Your task to perform on an android device: see creations saved in the google photos Image 0: 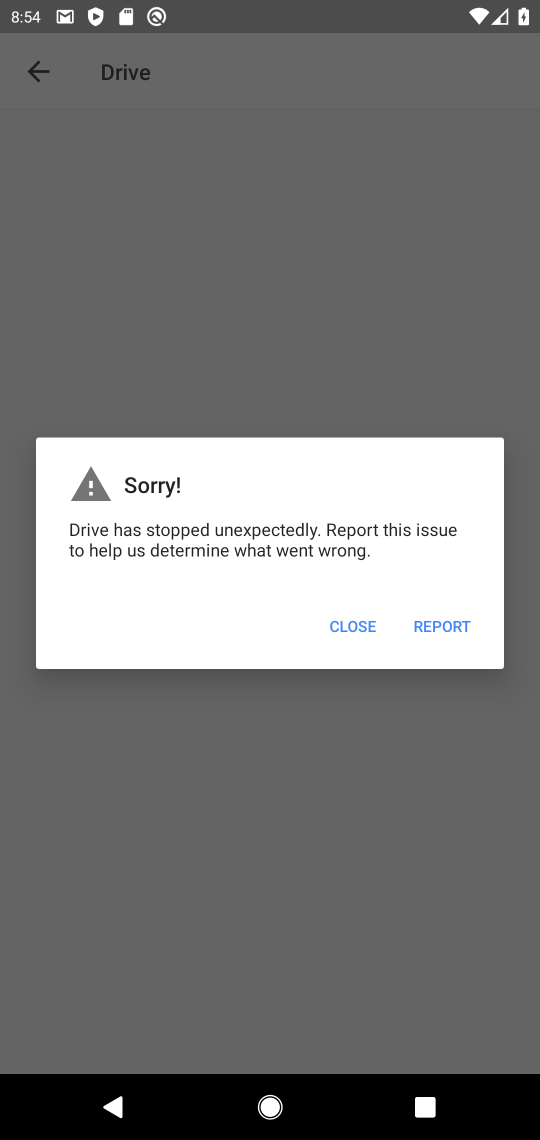
Step 0: press home button
Your task to perform on an android device: see creations saved in the google photos Image 1: 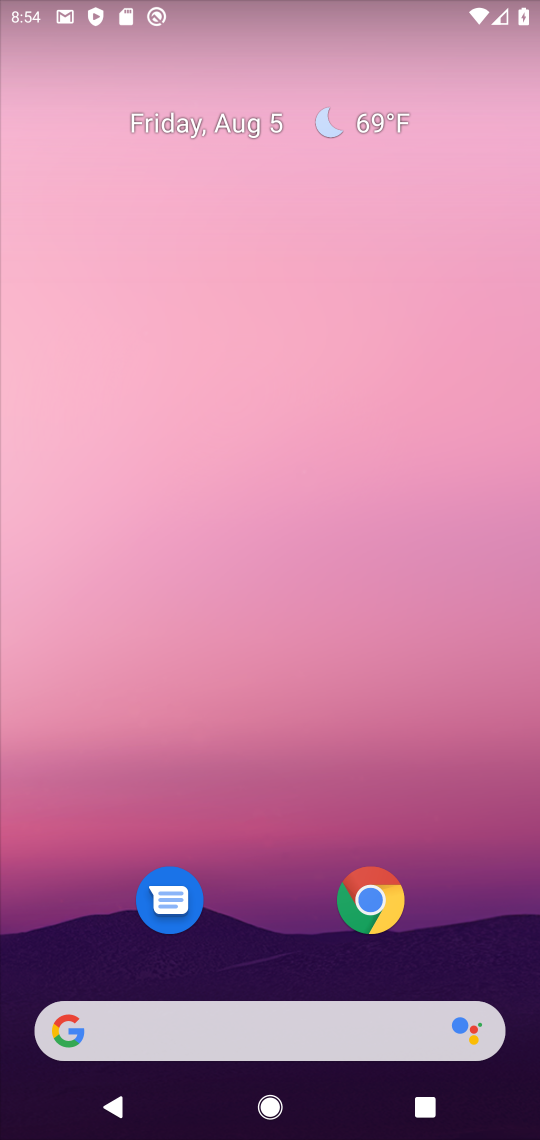
Step 1: drag from (249, 899) to (382, 266)
Your task to perform on an android device: see creations saved in the google photos Image 2: 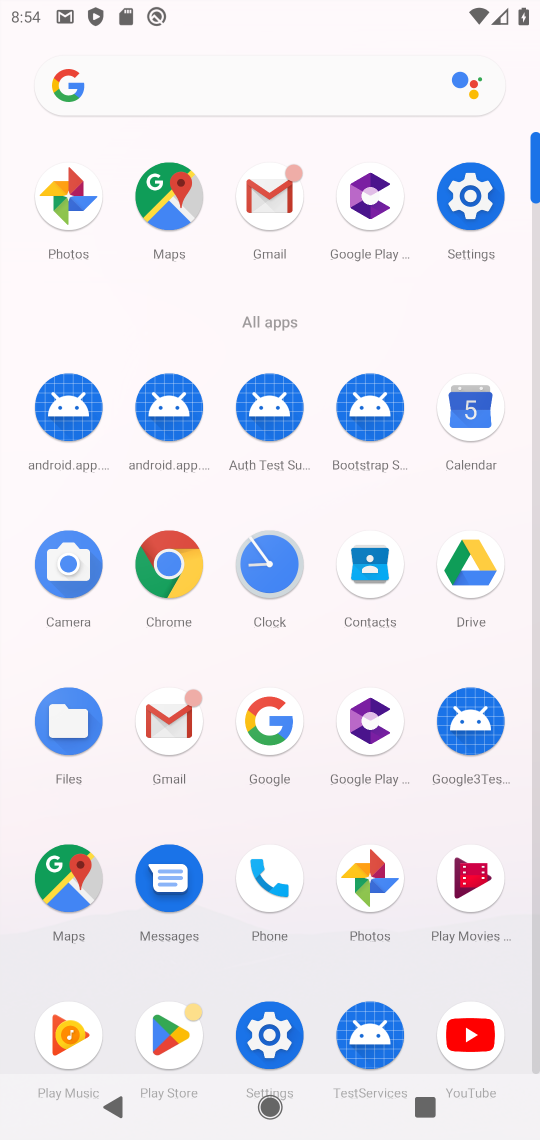
Step 2: click (379, 880)
Your task to perform on an android device: see creations saved in the google photos Image 3: 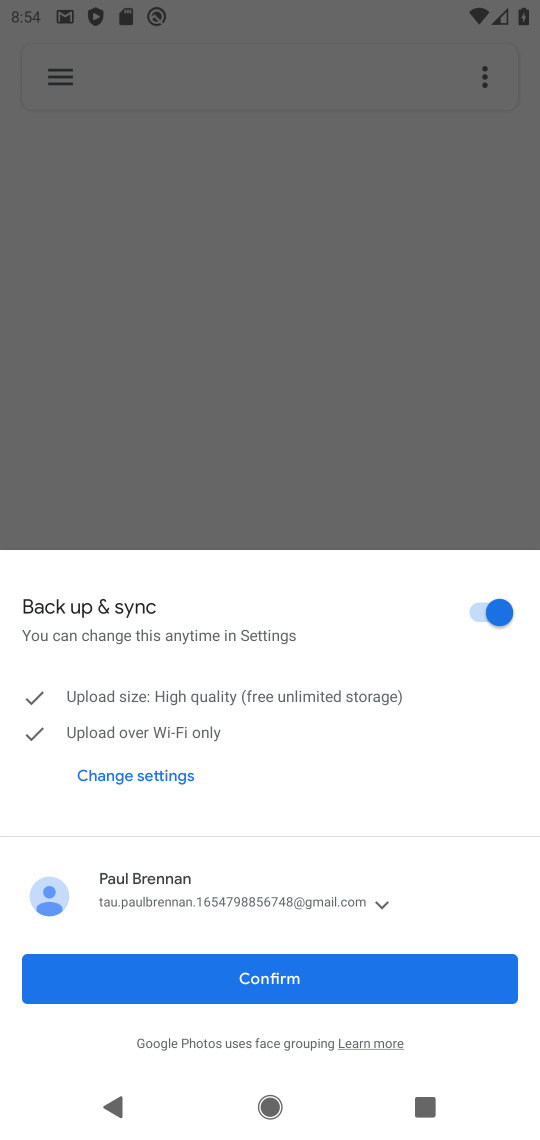
Step 3: click (286, 1024)
Your task to perform on an android device: see creations saved in the google photos Image 4: 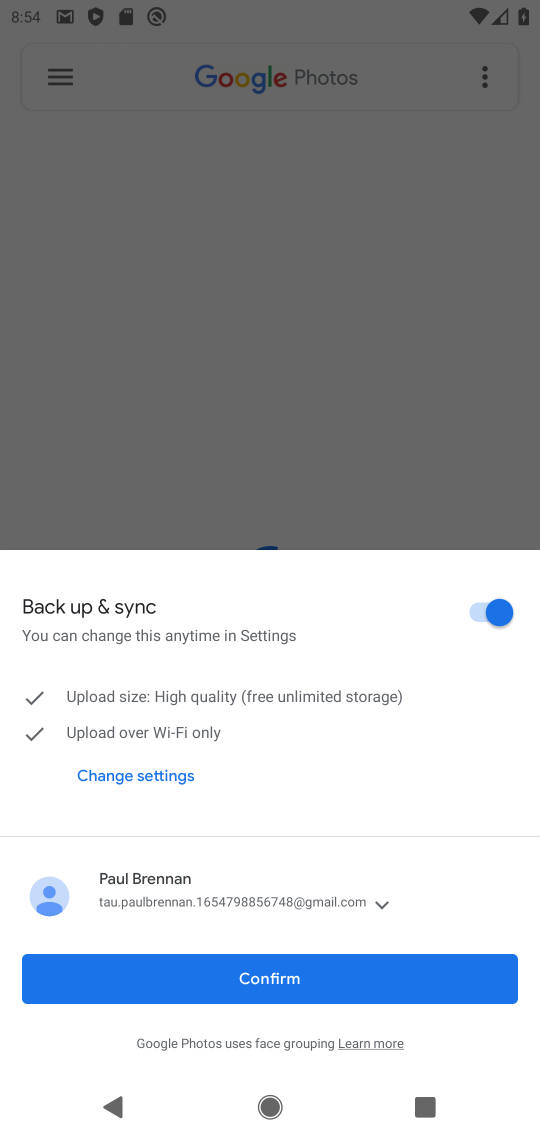
Step 4: click (290, 982)
Your task to perform on an android device: see creations saved in the google photos Image 5: 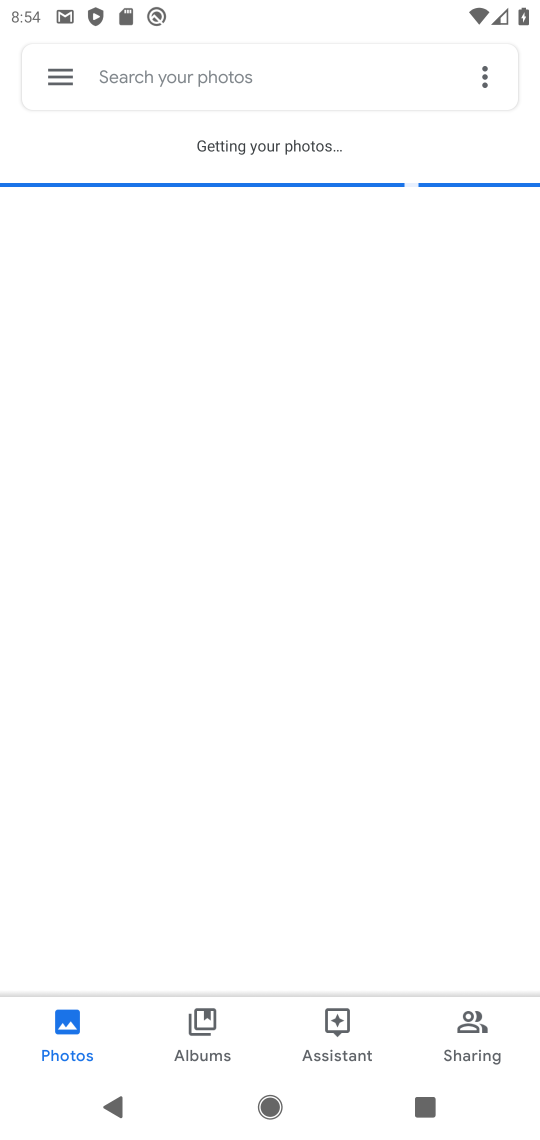
Step 5: click (218, 1044)
Your task to perform on an android device: see creations saved in the google photos Image 6: 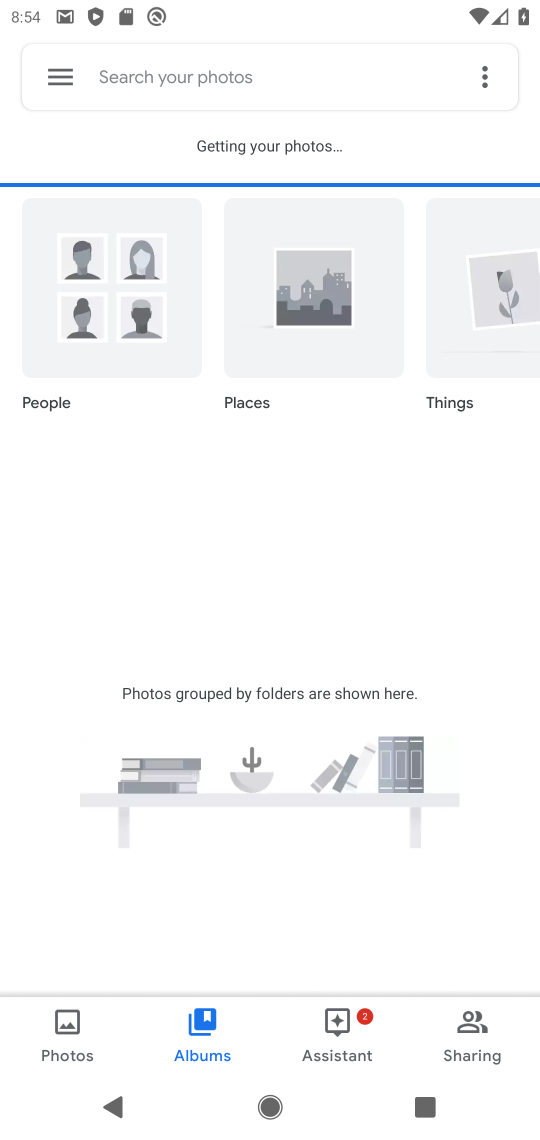
Step 6: task complete